Your task to perform on an android device: open app "Google Chat" Image 0: 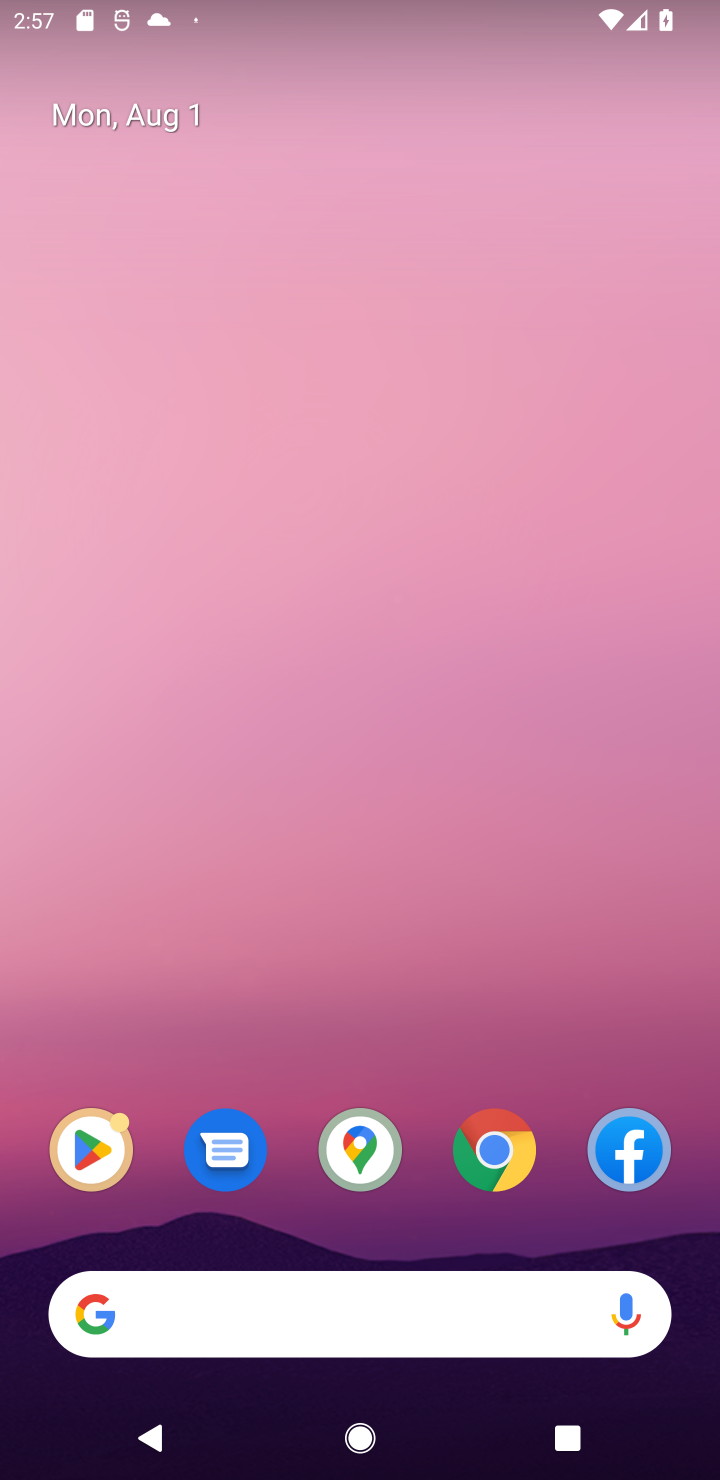
Step 0: click (75, 1183)
Your task to perform on an android device: open app "Google Chat" Image 1: 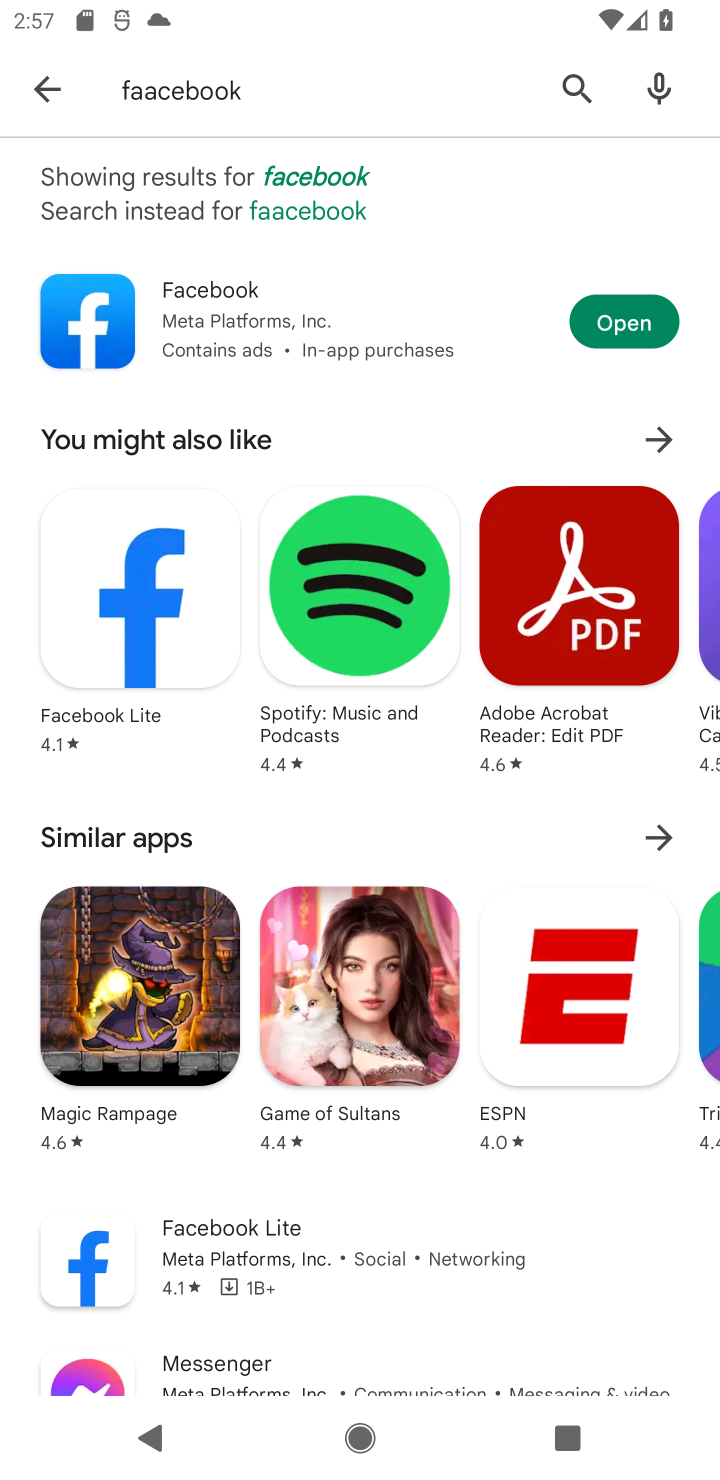
Step 1: click (596, 113)
Your task to perform on an android device: open app "Google Chat" Image 2: 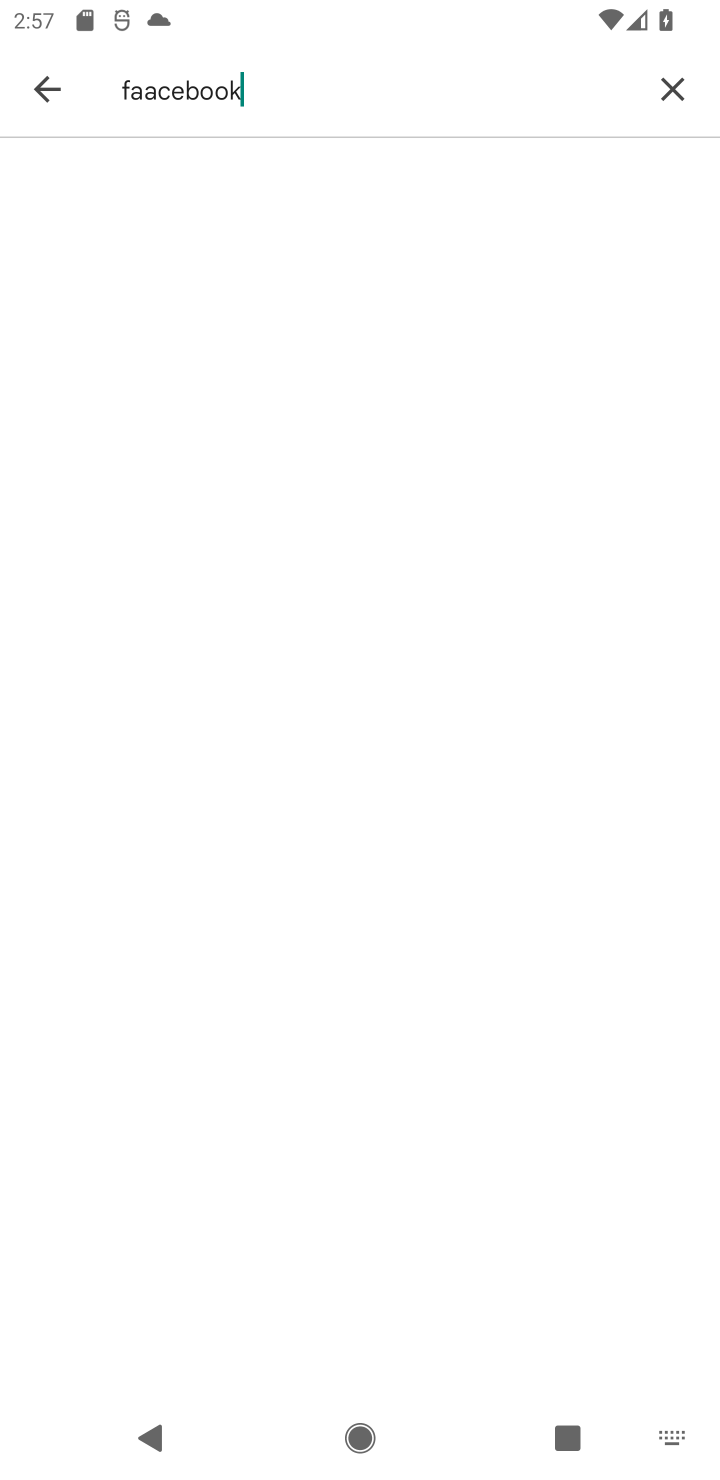
Step 2: click (596, 113)
Your task to perform on an android device: open app "Google Chat" Image 3: 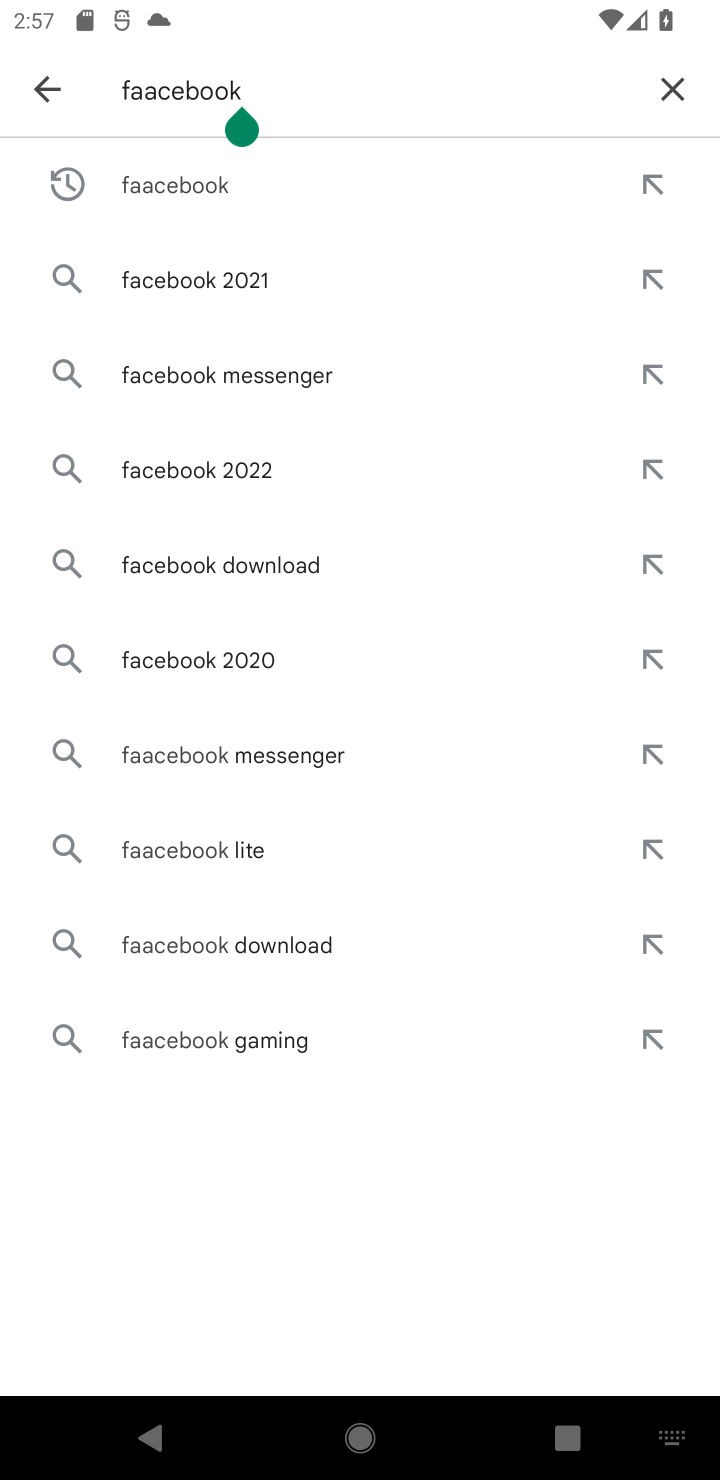
Step 3: click (659, 109)
Your task to perform on an android device: open app "Google Chat" Image 4: 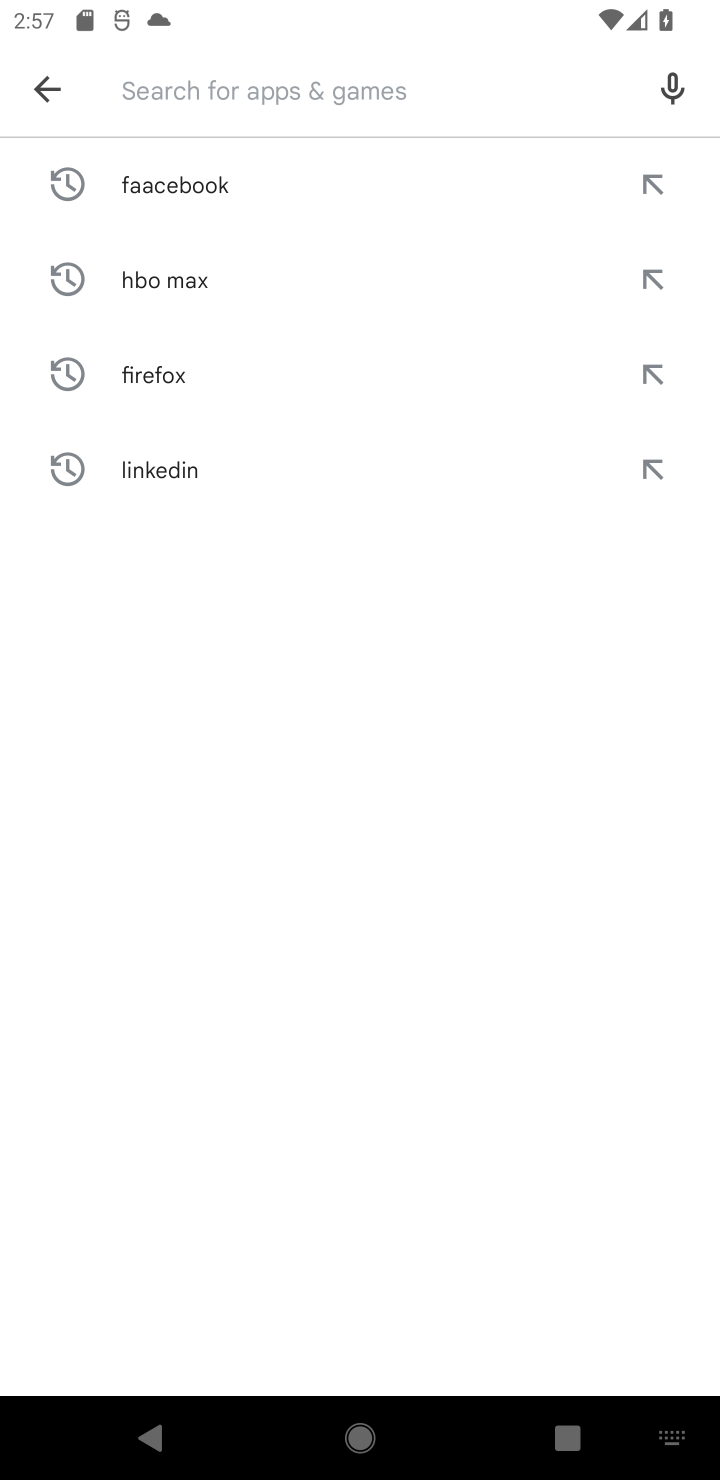
Step 4: type "google chat"
Your task to perform on an android device: open app "Google Chat" Image 5: 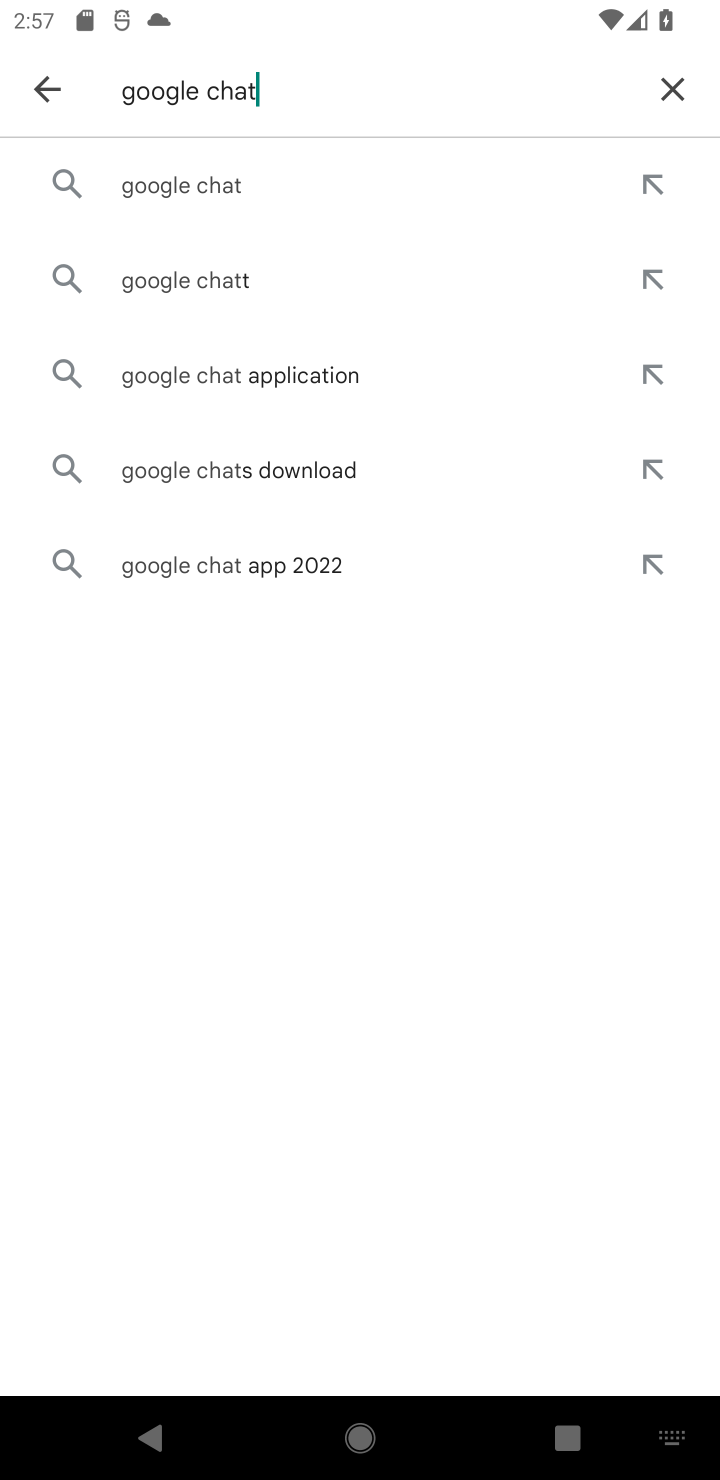
Step 5: click (279, 192)
Your task to perform on an android device: open app "Google Chat" Image 6: 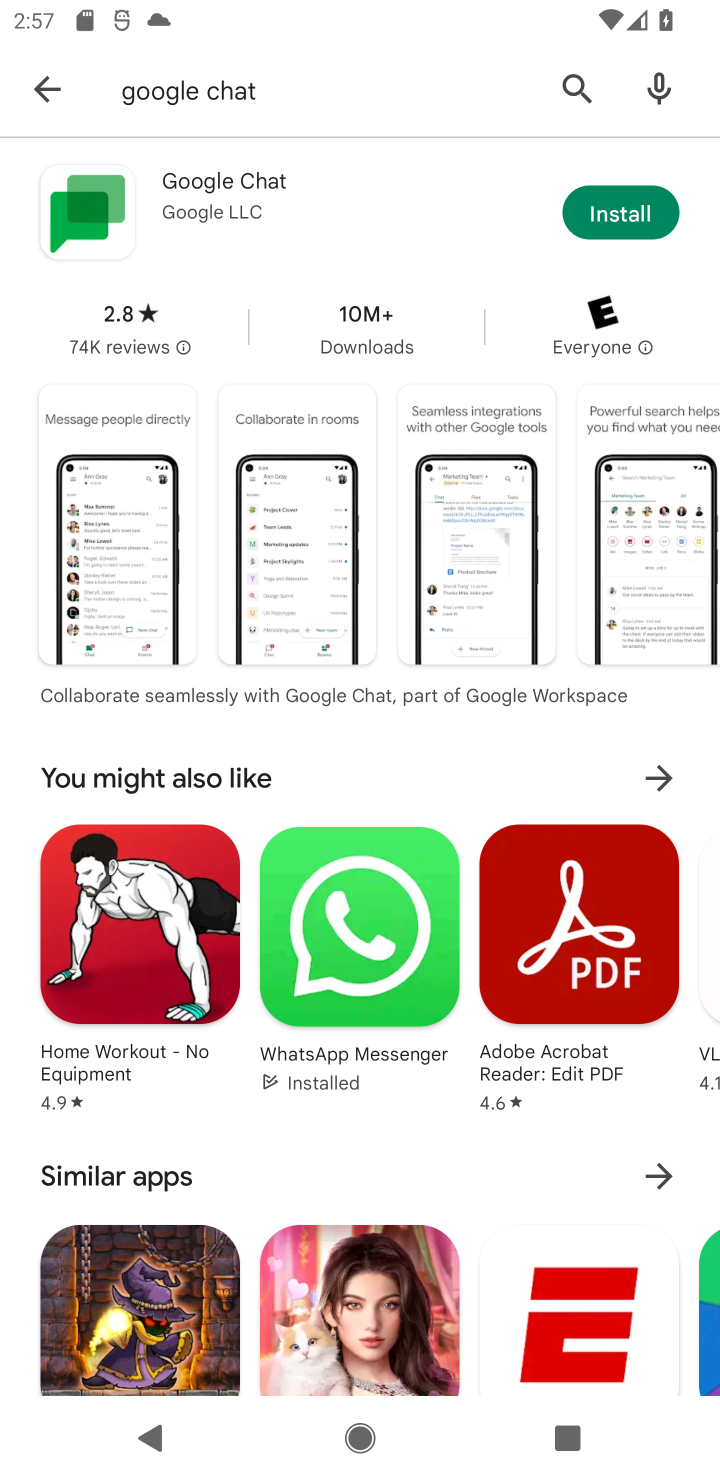
Step 6: click (606, 223)
Your task to perform on an android device: open app "Google Chat" Image 7: 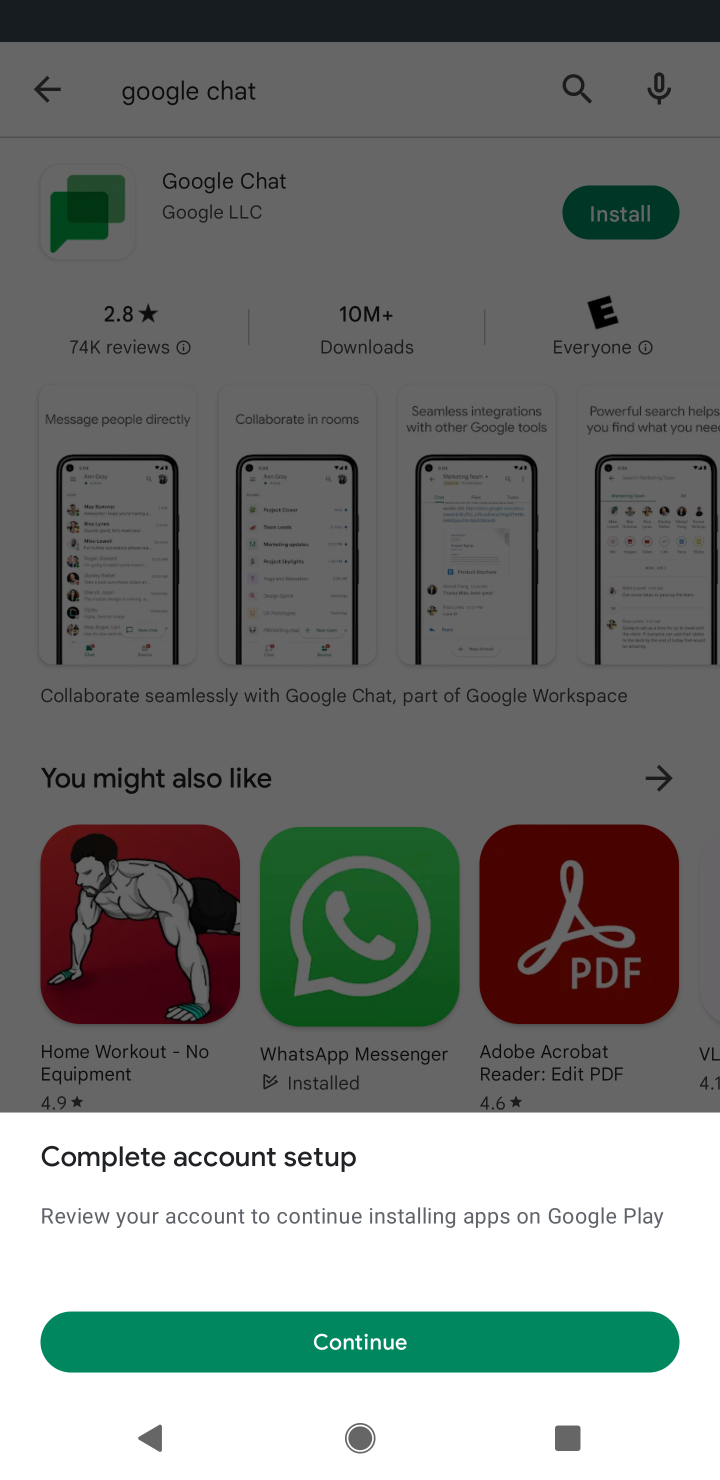
Step 7: click (382, 1329)
Your task to perform on an android device: open app "Google Chat" Image 8: 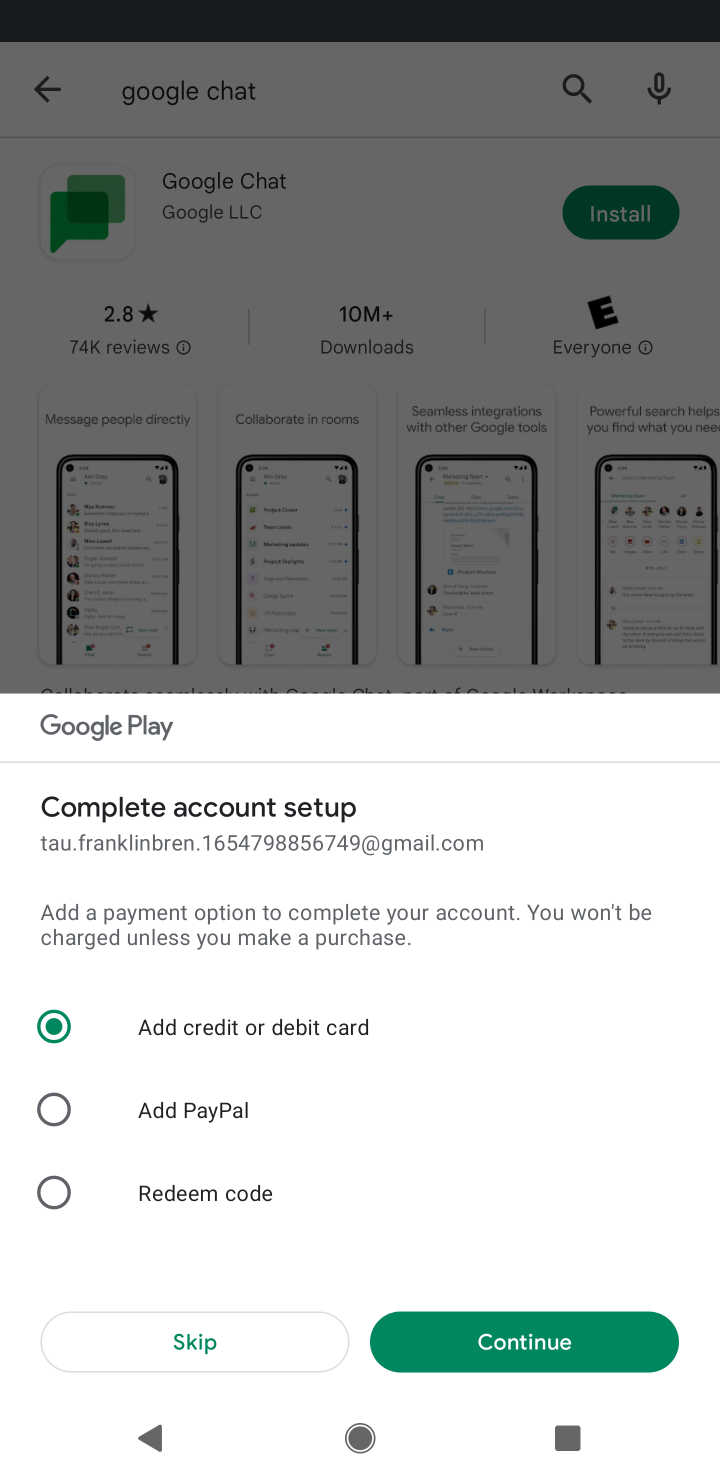
Step 8: click (198, 1361)
Your task to perform on an android device: open app "Google Chat" Image 9: 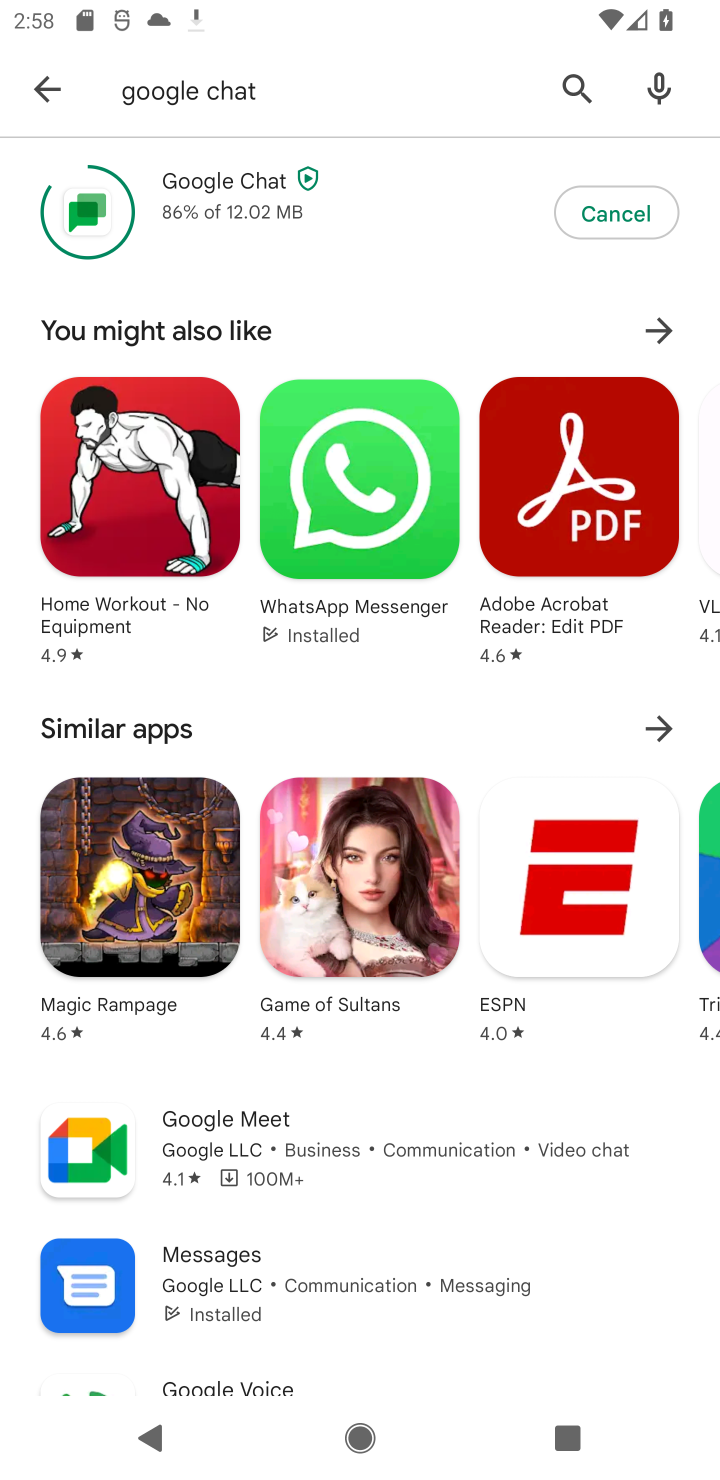
Step 9: task complete